Your task to perform on an android device: Go to Wikipedia Image 0: 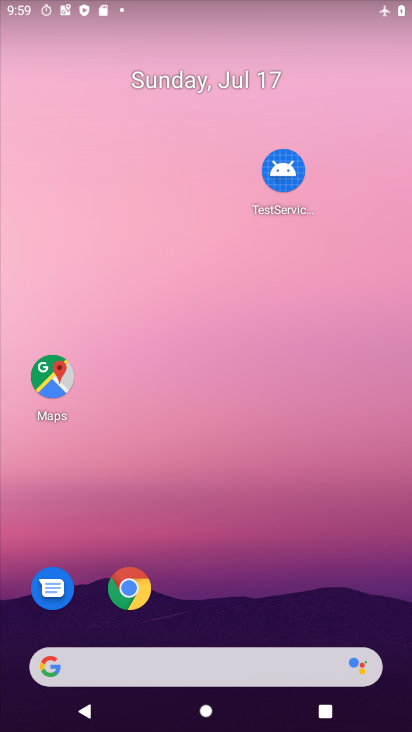
Step 0: drag from (228, 696) to (259, 237)
Your task to perform on an android device: Go to Wikipedia Image 1: 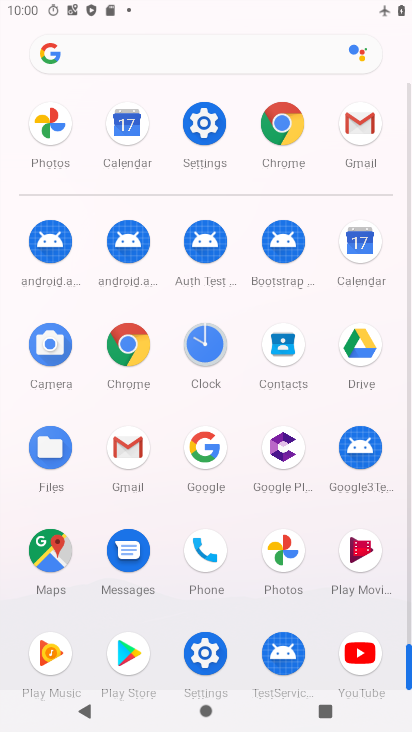
Step 1: click (278, 137)
Your task to perform on an android device: Go to Wikipedia Image 2: 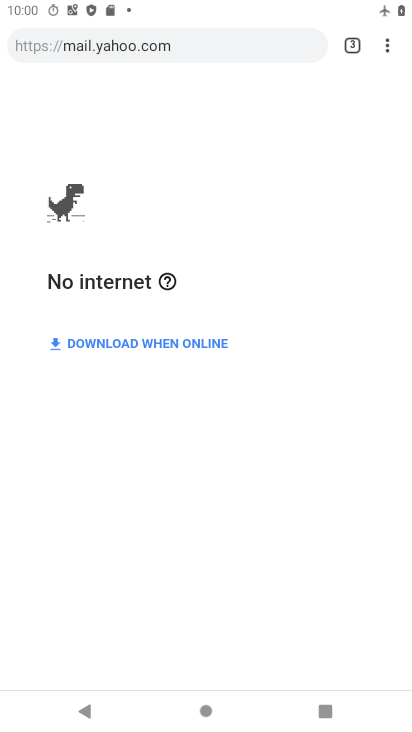
Step 2: click (214, 44)
Your task to perform on an android device: Go to Wikipedia Image 3: 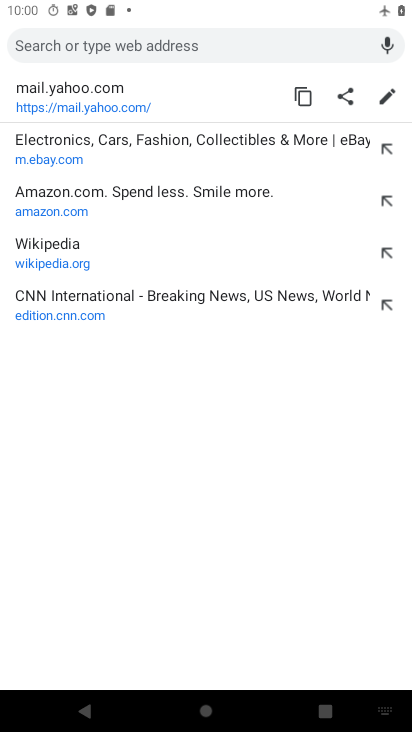
Step 3: click (95, 242)
Your task to perform on an android device: Go to Wikipedia Image 4: 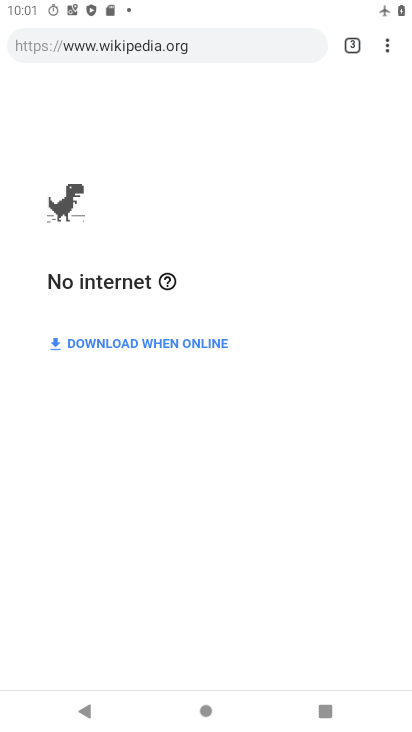
Step 4: task complete